Your task to perform on an android device: Go to wifi settings Image 0: 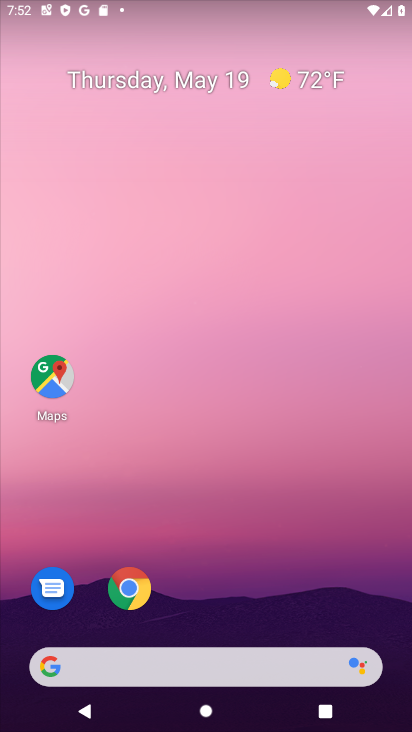
Step 0: drag from (251, 8) to (215, 589)
Your task to perform on an android device: Go to wifi settings Image 1: 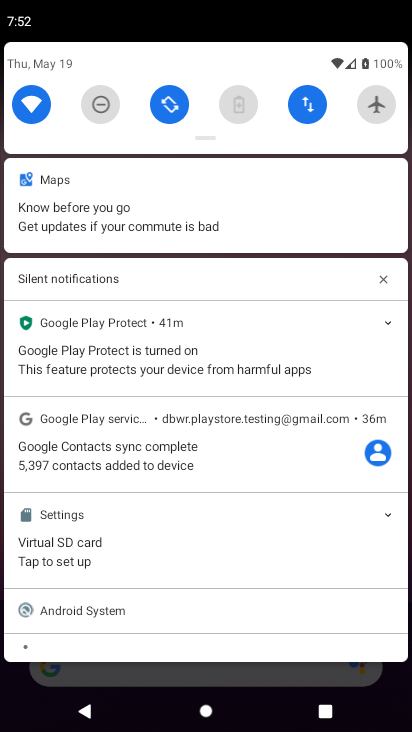
Step 1: click (36, 99)
Your task to perform on an android device: Go to wifi settings Image 2: 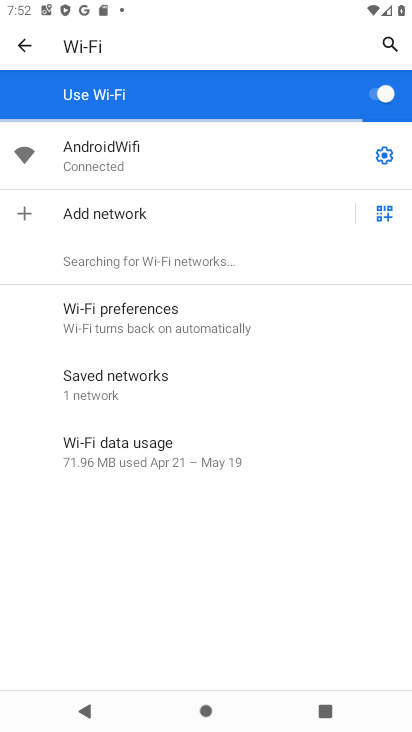
Step 2: task complete